Your task to perform on an android device: Open location settings Image 0: 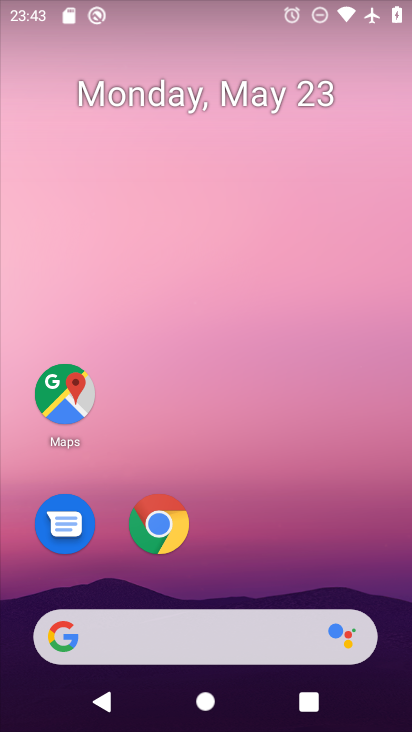
Step 0: drag from (231, 576) to (238, 164)
Your task to perform on an android device: Open location settings Image 1: 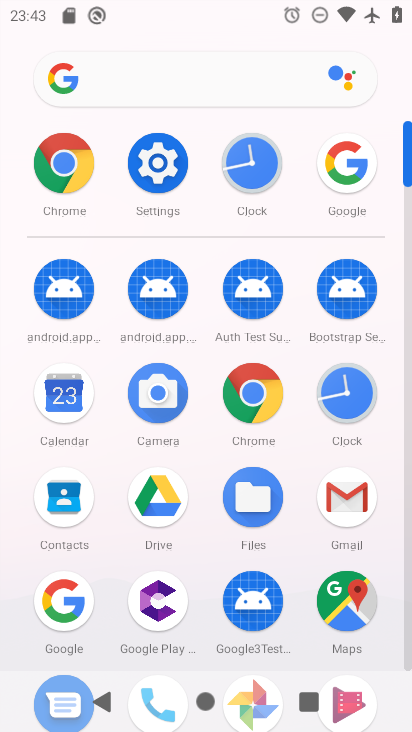
Step 1: click (170, 170)
Your task to perform on an android device: Open location settings Image 2: 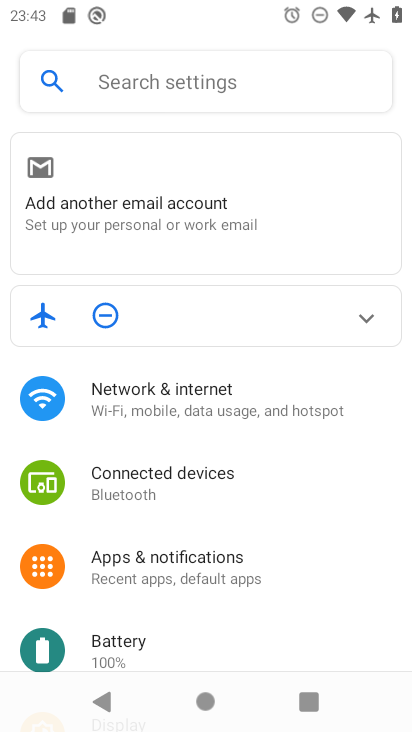
Step 2: drag from (189, 529) to (189, 233)
Your task to perform on an android device: Open location settings Image 3: 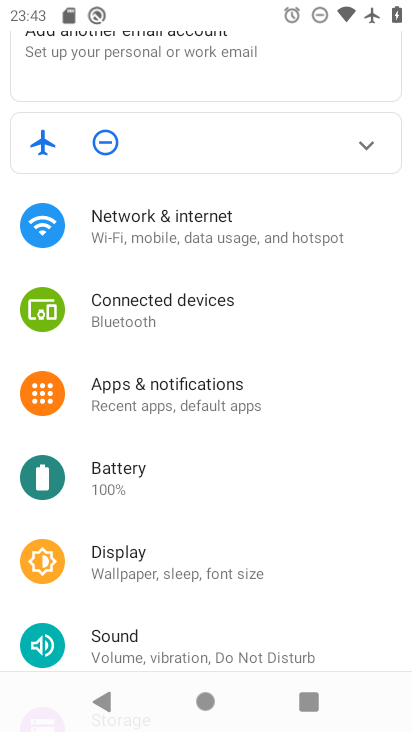
Step 3: drag from (189, 601) to (191, 367)
Your task to perform on an android device: Open location settings Image 4: 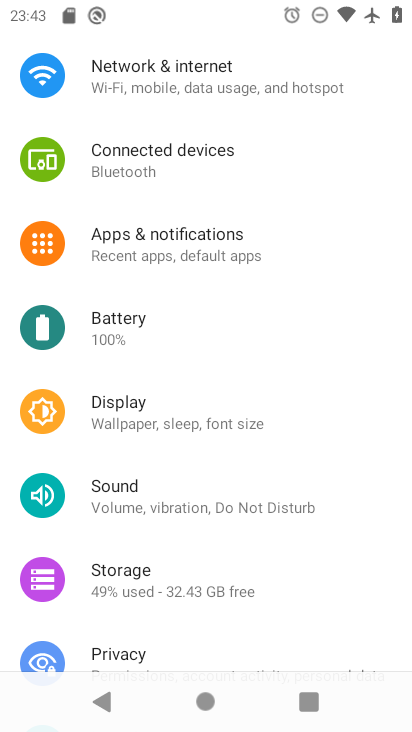
Step 4: drag from (188, 579) to (184, 217)
Your task to perform on an android device: Open location settings Image 5: 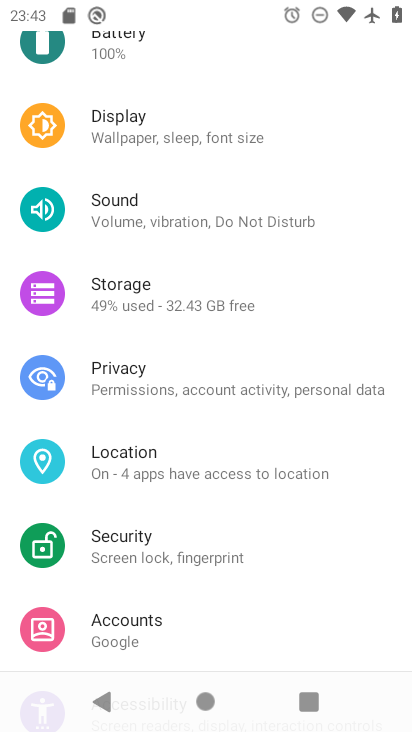
Step 5: click (151, 473)
Your task to perform on an android device: Open location settings Image 6: 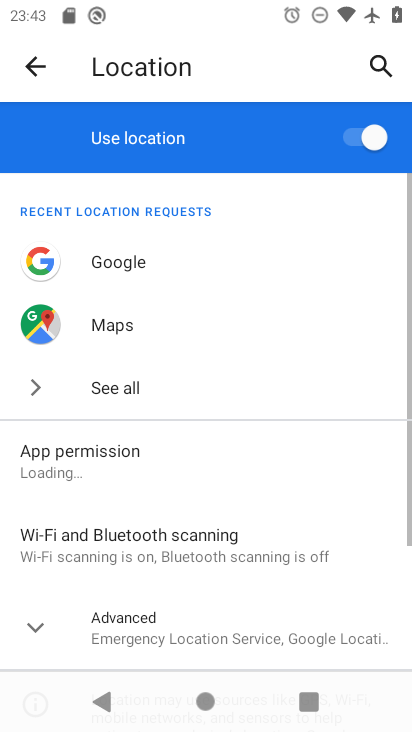
Step 6: task complete